Your task to perform on an android device: Go to accessibility settings Image 0: 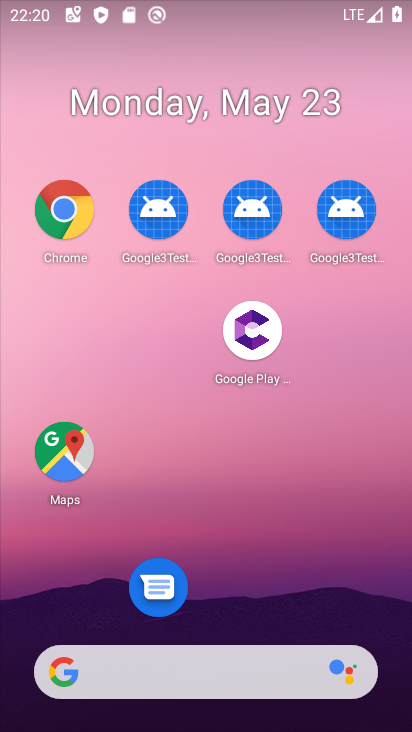
Step 0: drag from (306, 501) to (349, 79)
Your task to perform on an android device: Go to accessibility settings Image 1: 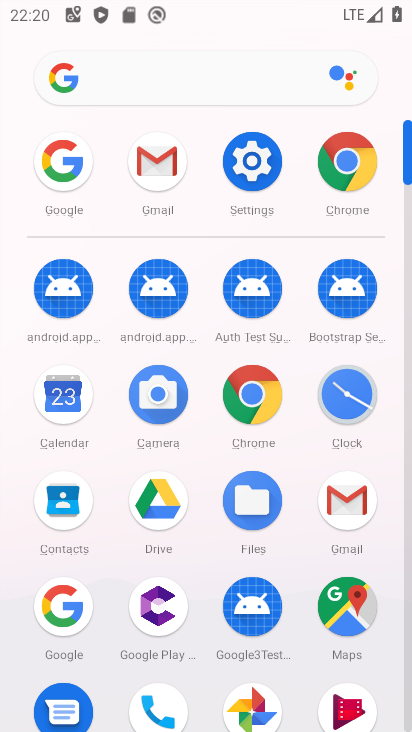
Step 1: click (243, 163)
Your task to perform on an android device: Go to accessibility settings Image 2: 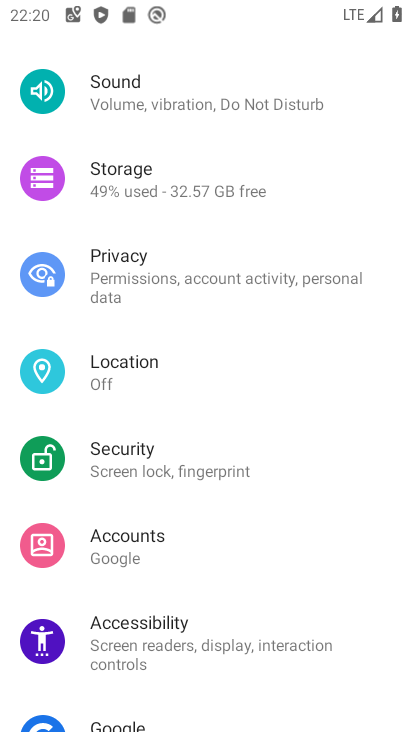
Step 2: click (117, 634)
Your task to perform on an android device: Go to accessibility settings Image 3: 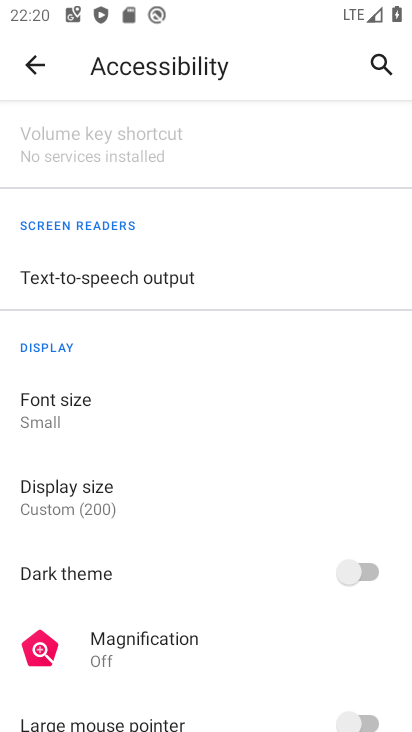
Step 3: task complete